Your task to perform on an android device: search for starred emails in the gmail app Image 0: 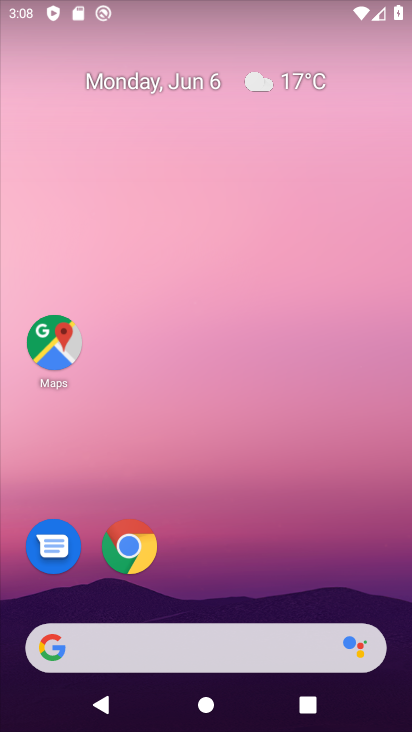
Step 0: drag from (339, 549) to (299, 0)
Your task to perform on an android device: search for starred emails in the gmail app Image 1: 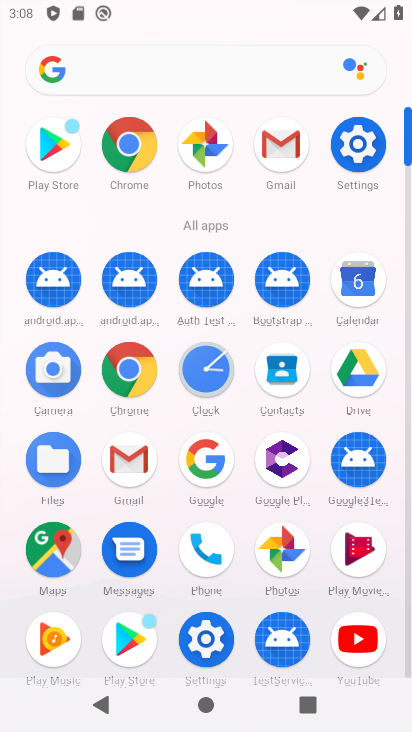
Step 1: click (287, 159)
Your task to perform on an android device: search for starred emails in the gmail app Image 2: 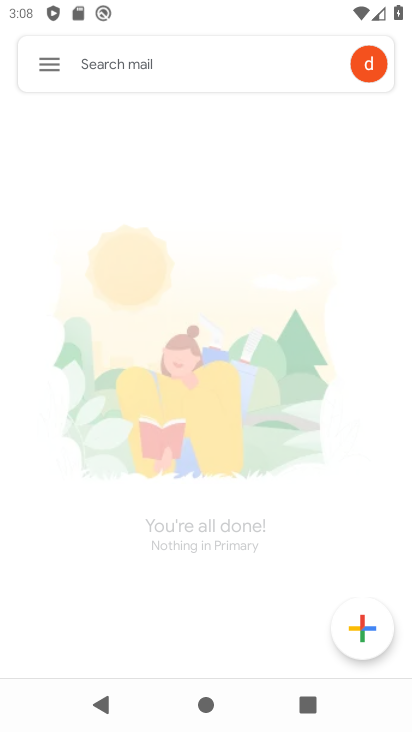
Step 2: click (63, 82)
Your task to perform on an android device: search for starred emails in the gmail app Image 3: 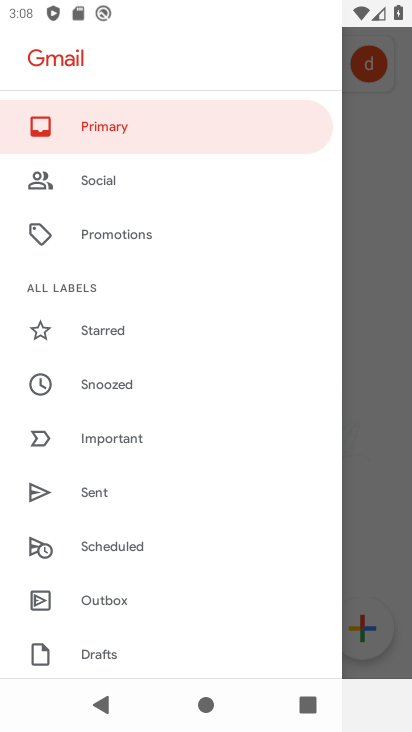
Step 3: click (121, 317)
Your task to perform on an android device: search for starred emails in the gmail app Image 4: 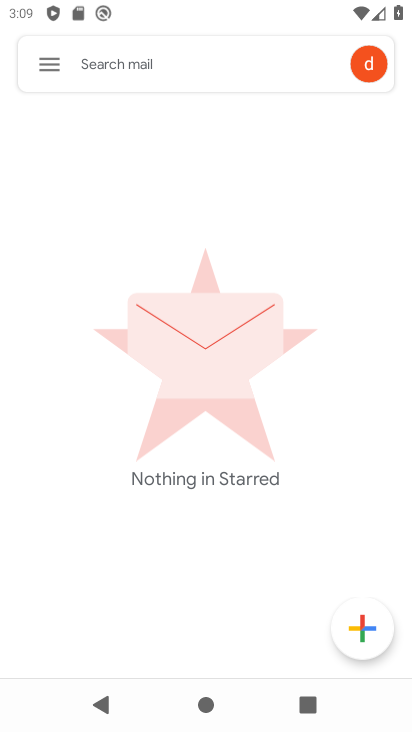
Step 4: task complete